Your task to perform on an android device: change alarm snooze length Image 0: 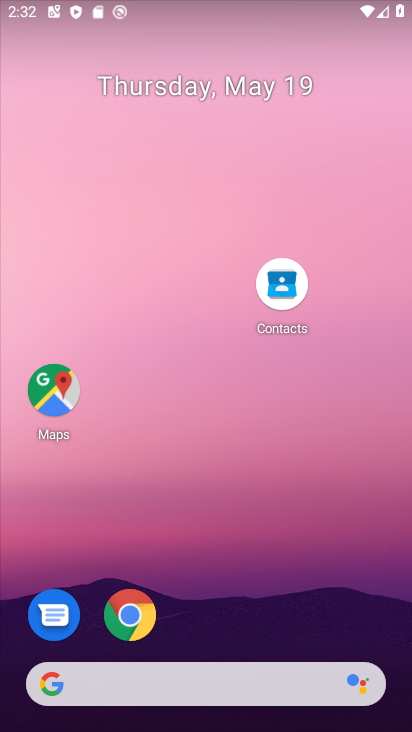
Step 0: drag from (266, 580) to (334, 236)
Your task to perform on an android device: change alarm snooze length Image 1: 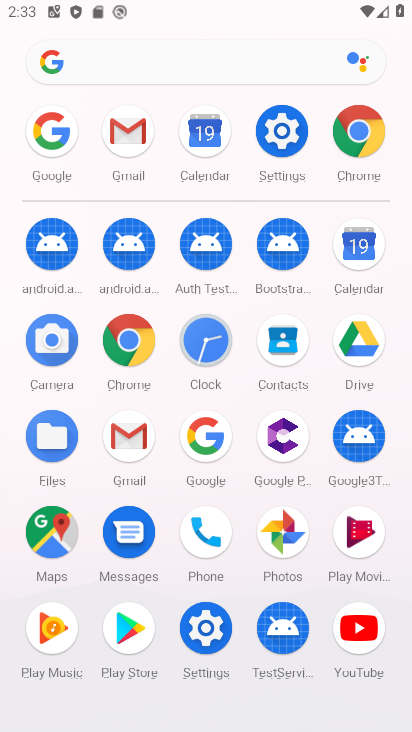
Step 1: click (216, 358)
Your task to perform on an android device: change alarm snooze length Image 2: 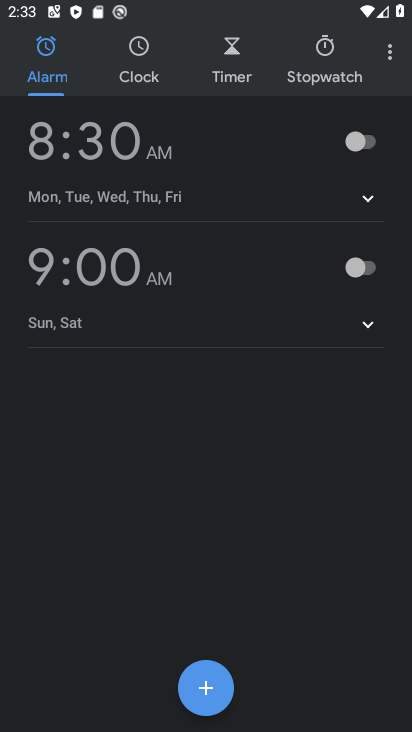
Step 2: click (398, 63)
Your task to perform on an android device: change alarm snooze length Image 3: 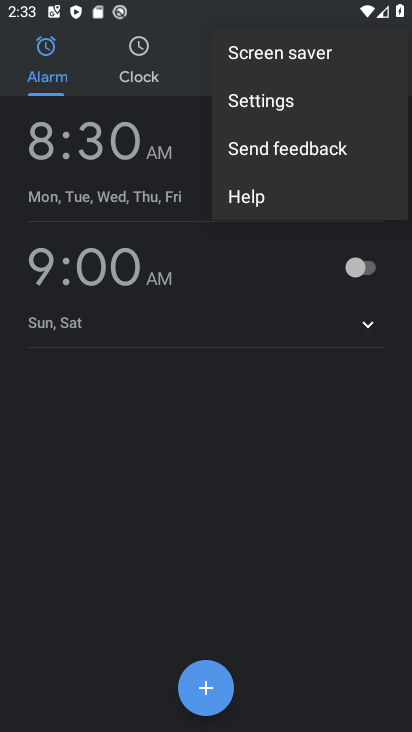
Step 3: click (289, 106)
Your task to perform on an android device: change alarm snooze length Image 4: 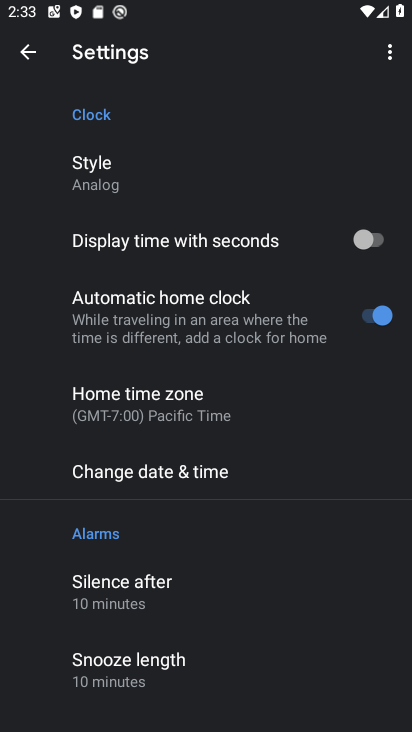
Step 4: drag from (211, 547) to (300, 301)
Your task to perform on an android device: change alarm snooze length Image 5: 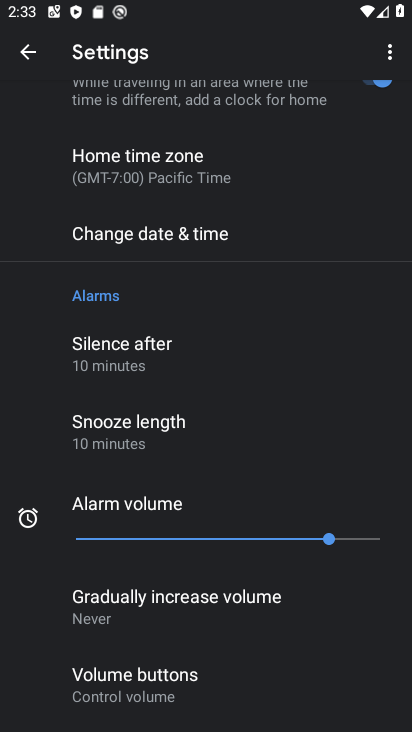
Step 5: click (212, 442)
Your task to perform on an android device: change alarm snooze length Image 6: 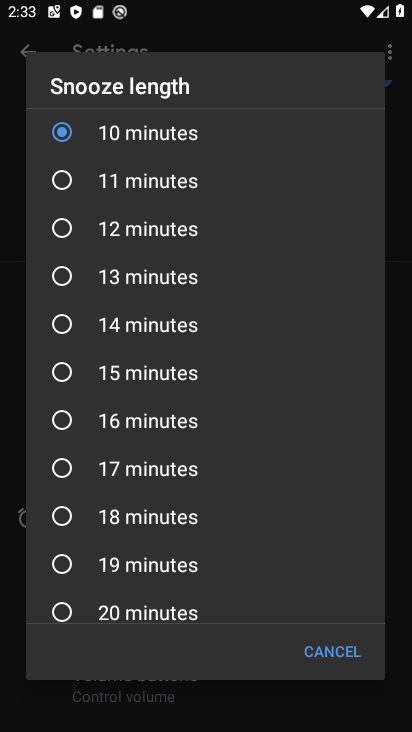
Step 6: click (80, 228)
Your task to perform on an android device: change alarm snooze length Image 7: 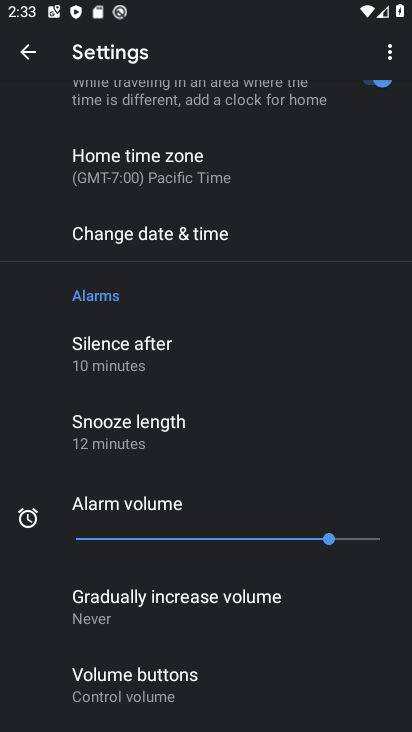
Step 7: task complete